Your task to perform on an android device: What's on my calendar tomorrow? Image 0: 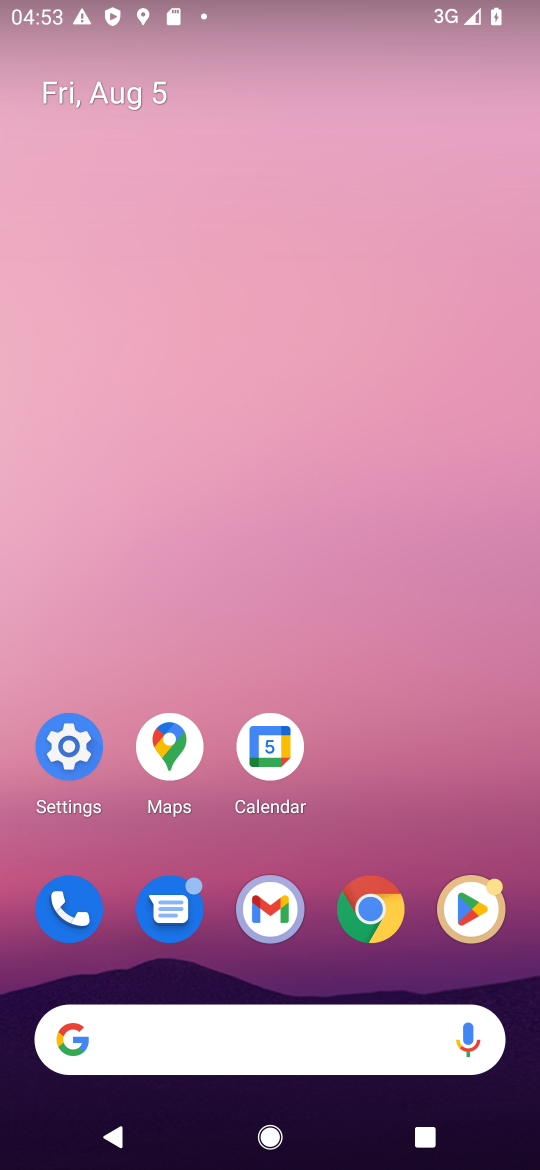
Step 0: click (271, 736)
Your task to perform on an android device: What's on my calendar tomorrow? Image 1: 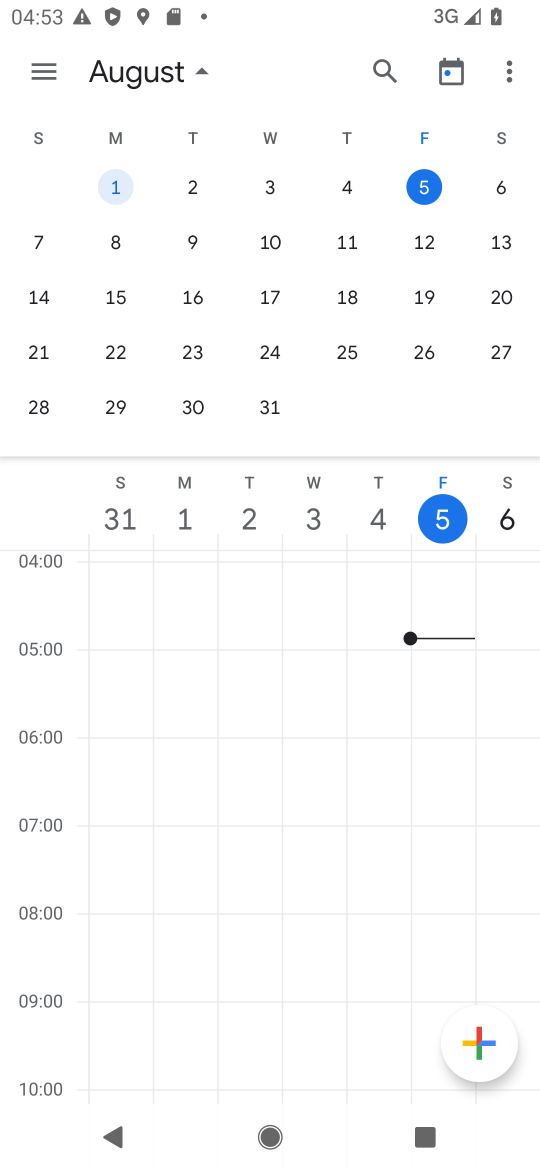
Step 1: click (503, 189)
Your task to perform on an android device: What's on my calendar tomorrow? Image 2: 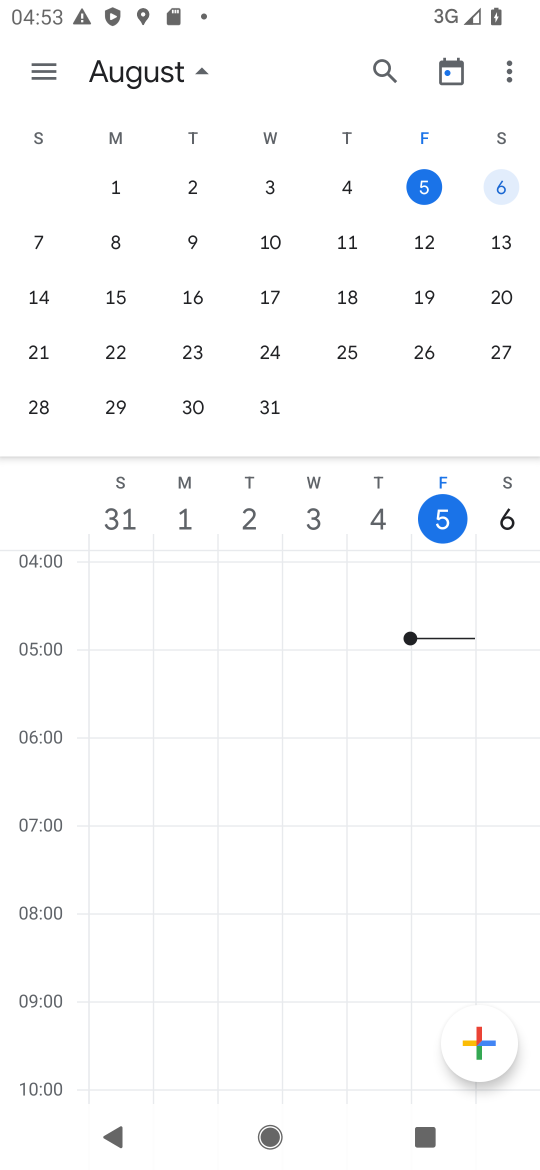
Step 2: click (505, 523)
Your task to perform on an android device: What's on my calendar tomorrow? Image 3: 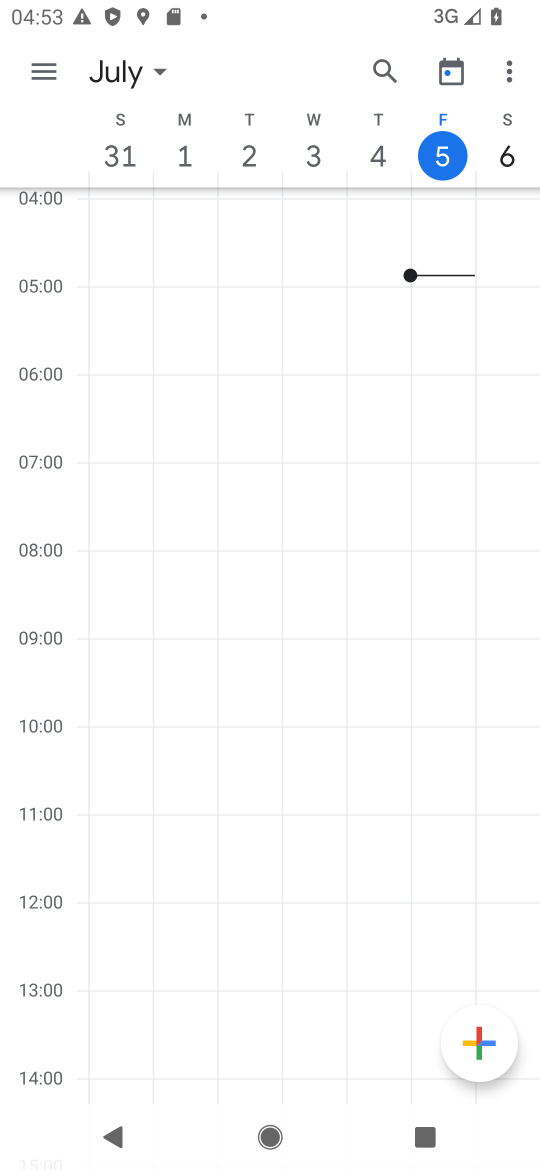
Step 3: click (512, 155)
Your task to perform on an android device: What's on my calendar tomorrow? Image 4: 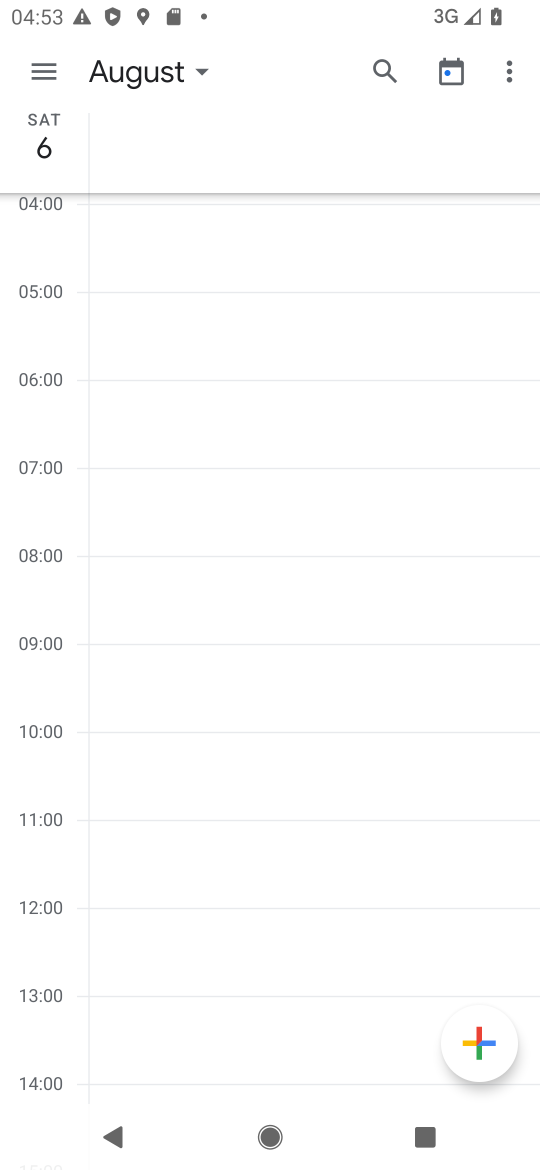
Step 4: task complete